Your task to perform on an android device: Search for "razer blackwidow" on ebay, select the first entry, add it to the cart, then select checkout. Image 0: 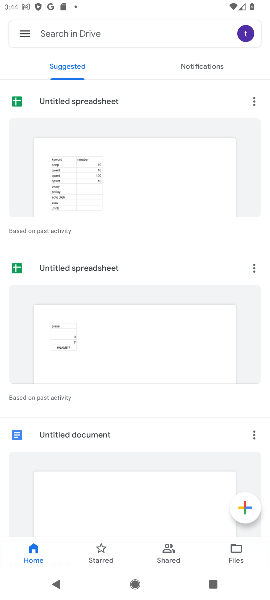
Step 0: press home button
Your task to perform on an android device: Search for "razer blackwidow" on ebay, select the first entry, add it to the cart, then select checkout. Image 1: 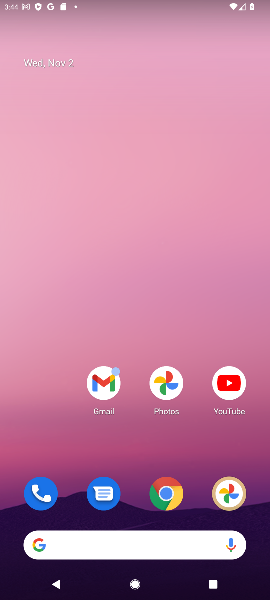
Step 1: drag from (117, 506) to (165, 174)
Your task to perform on an android device: Search for "razer blackwidow" on ebay, select the first entry, add it to the cart, then select checkout. Image 2: 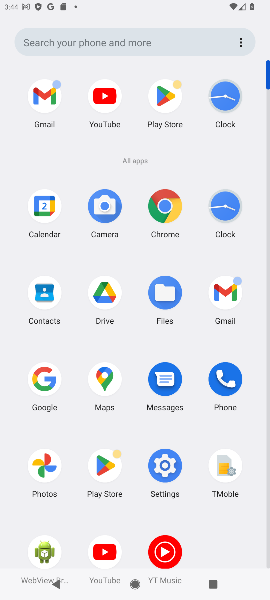
Step 2: click (40, 376)
Your task to perform on an android device: Search for "razer blackwidow" on ebay, select the first entry, add it to the cart, then select checkout. Image 3: 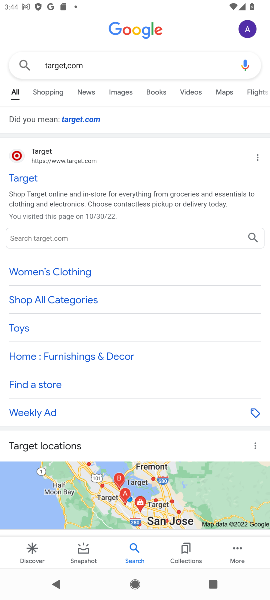
Step 3: click (101, 61)
Your task to perform on an android device: Search for "razer blackwidow" on ebay, select the first entry, add it to the cart, then select checkout. Image 4: 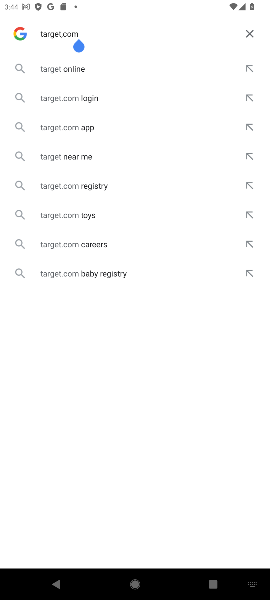
Step 4: click (252, 28)
Your task to perform on an android device: Search for "razer blackwidow" on ebay, select the first entry, add it to the cart, then select checkout. Image 5: 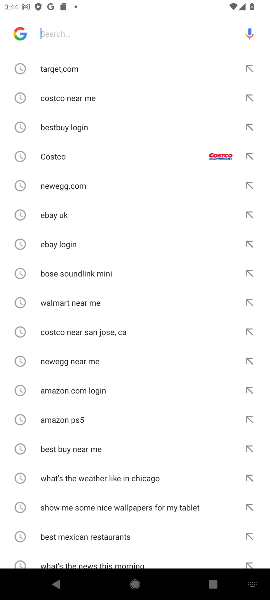
Step 5: click (78, 29)
Your task to perform on an android device: Search for "razer blackwidow" on ebay, select the first entry, add it to the cart, then select checkout. Image 6: 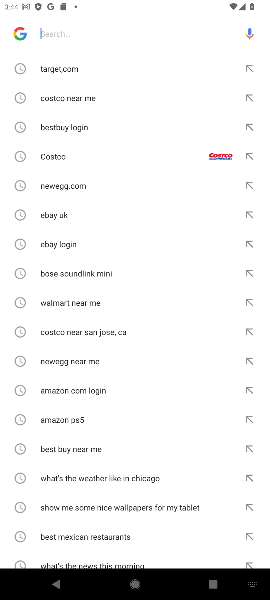
Step 6: type "ebay "
Your task to perform on an android device: Search for "razer blackwidow" on ebay, select the first entry, add it to the cart, then select checkout. Image 7: 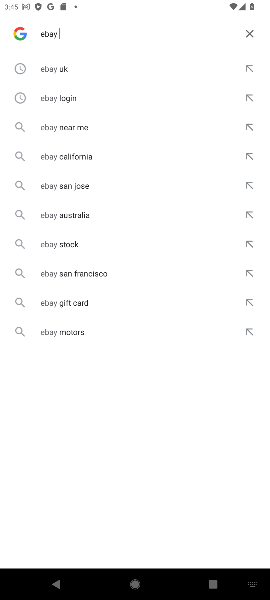
Step 7: click (60, 62)
Your task to perform on an android device: Search for "razer blackwidow" on ebay, select the first entry, add it to the cart, then select checkout. Image 8: 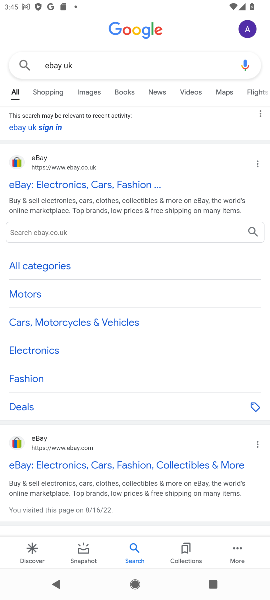
Step 8: click (17, 165)
Your task to perform on an android device: Search for "razer blackwidow" on ebay, select the first entry, add it to the cart, then select checkout. Image 9: 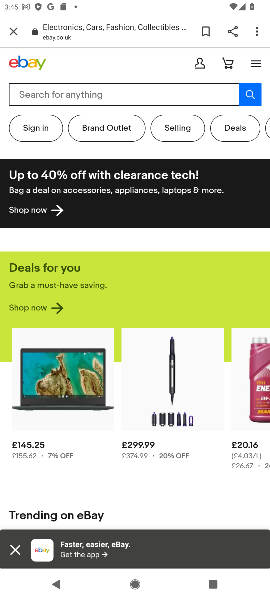
Step 9: click (116, 85)
Your task to perform on an android device: Search for "razer blackwidow" on ebay, select the first entry, add it to the cart, then select checkout. Image 10: 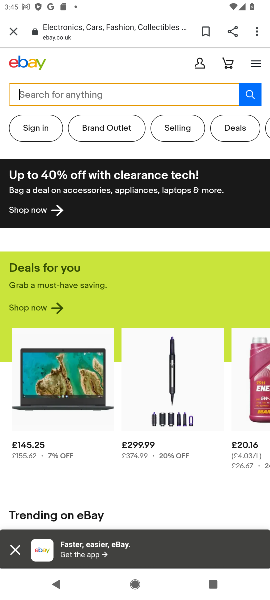
Step 10: click (116, 87)
Your task to perform on an android device: Search for "razer blackwidow" on ebay, select the first entry, add it to the cart, then select checkout. Image 11: 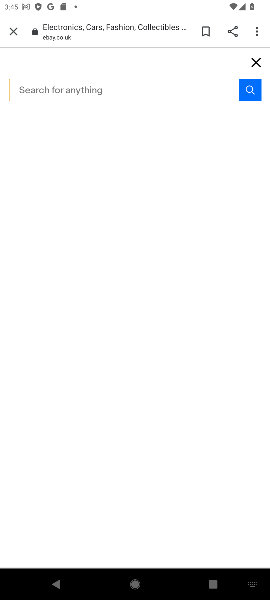
Step 11: type "razer blackwidow "
Your task to perform on an android device: Search for "razer blackwidow" on ebay, select the first entry, add it to the cart, then select checkout. Image 12: 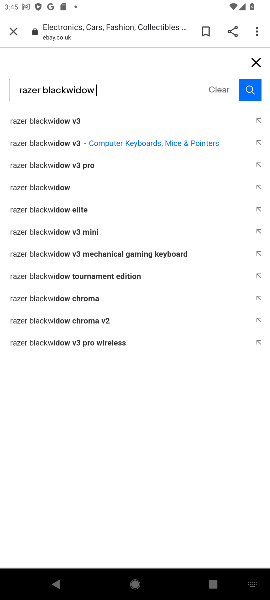
Step 12: click (48, 120)
Your task to perform on an android device: Search for "razer blackwidow" on ebay, select the first entry, add it to the cart, then select checkout. Image 13: 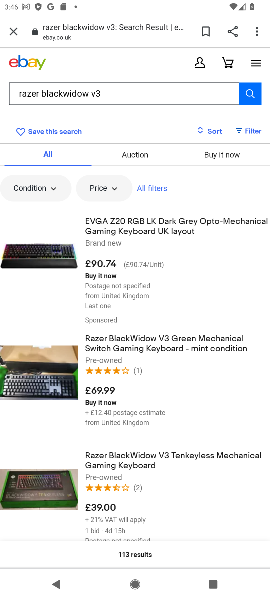
Step 13: click (104, 218)
Your task to perform on an android device: Search for "razer blackwidow" on ebay, select the first entry, add it to the cart, then select checkout. Image 14: 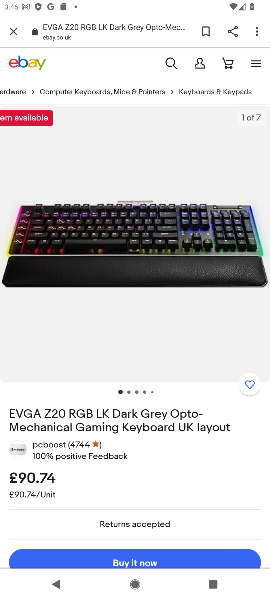
Step 14: drag from (129, 500) to (129, 314)
Your task to perform on an android device: Search for "razer blackwidow" on ebay, select the first entry, add it to the cart, then select checkout. Image 15: 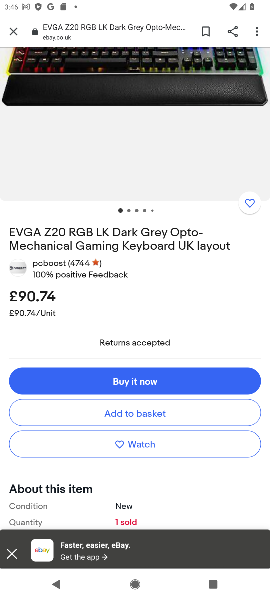
Step 15: click (134, 411)
Your task to perform on an android device: Search for "razer blackwidow" on ebay, select the first entry, add it to the cart, then select checkout. Image 16: 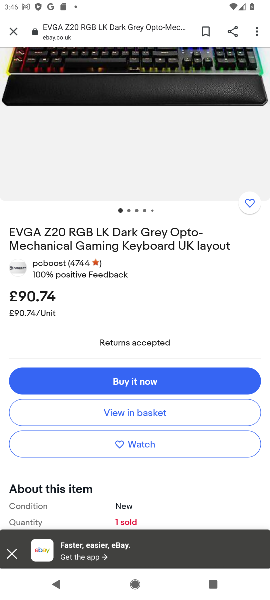
Step 16: task complete